Your task to perform on an android device: Clear the shopping cart on walmart.com. Search for bose soundlink mini on walmart.com, select the first entry, and add it to the cart. Image 0: 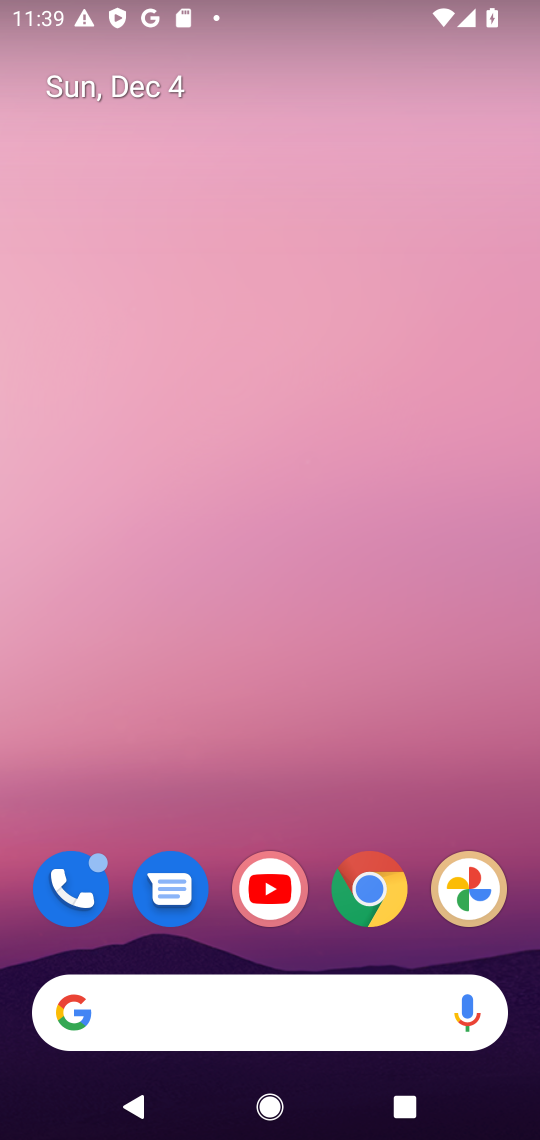
Step 0: click (375, 881)
Your task to perform on an android device: Clear the shopping cart on walmart.com. Search for bose soundlink mini on walmart.com, select the first entry, and add it to the cart. Image 1: 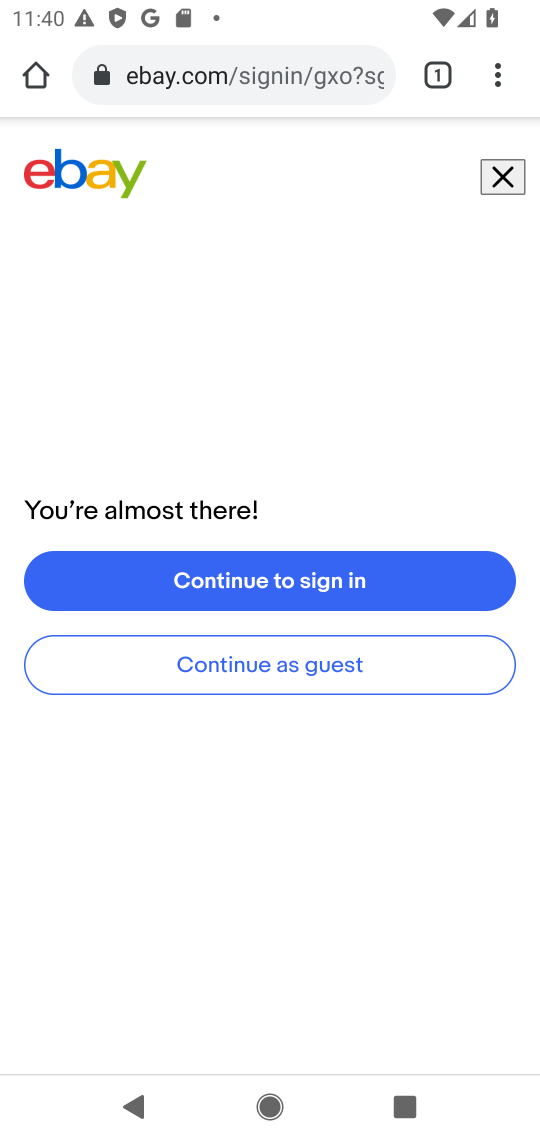
Step 1: press home button
Your task to perform on an android device: Clear the shopping cart on walmart.com. Search for bose soundlink mini on walmart.com, select the first entry, and add it to the cart. Image 2: 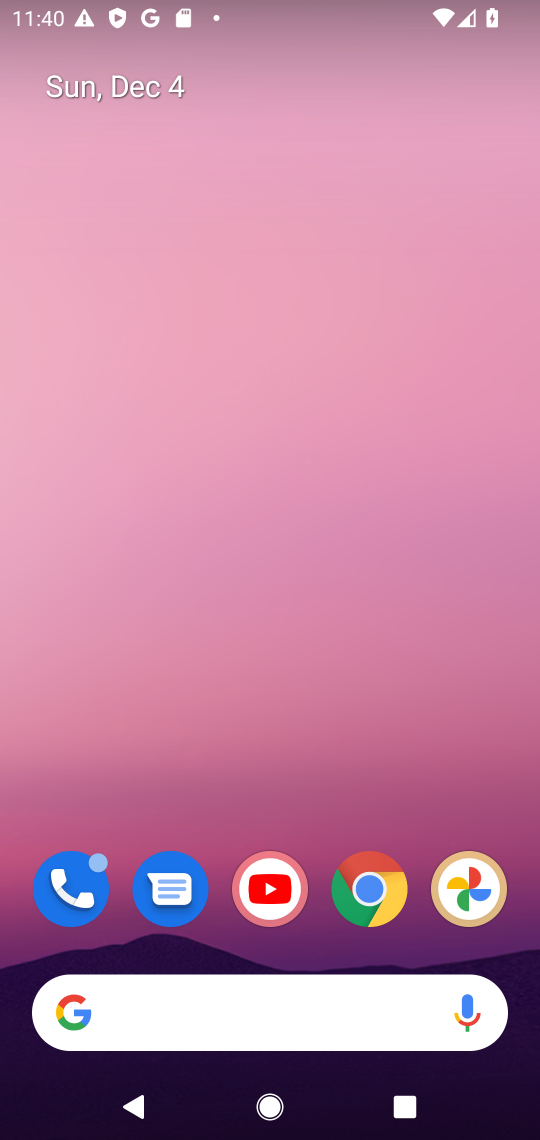
Step 2: click (359, 899)
Your task to perform on an android device: Clear the shopping cart on walmart.com. Search for bose soundlink mini on walmart.com, select the first entry, and add it to the cart. Image 3: 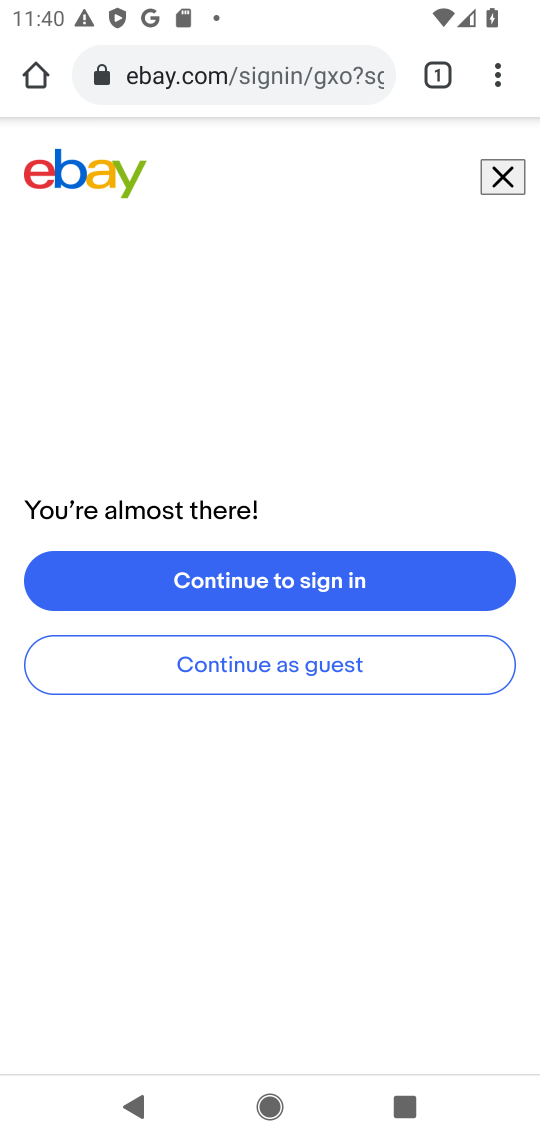
Step 3: click (305, 79)
Your task to perform on an android device: Clear the shopping cart on walmart.com. Search for bose soundlink mini on walmart.com, select the first entry, and add it to the cart. Image 4: 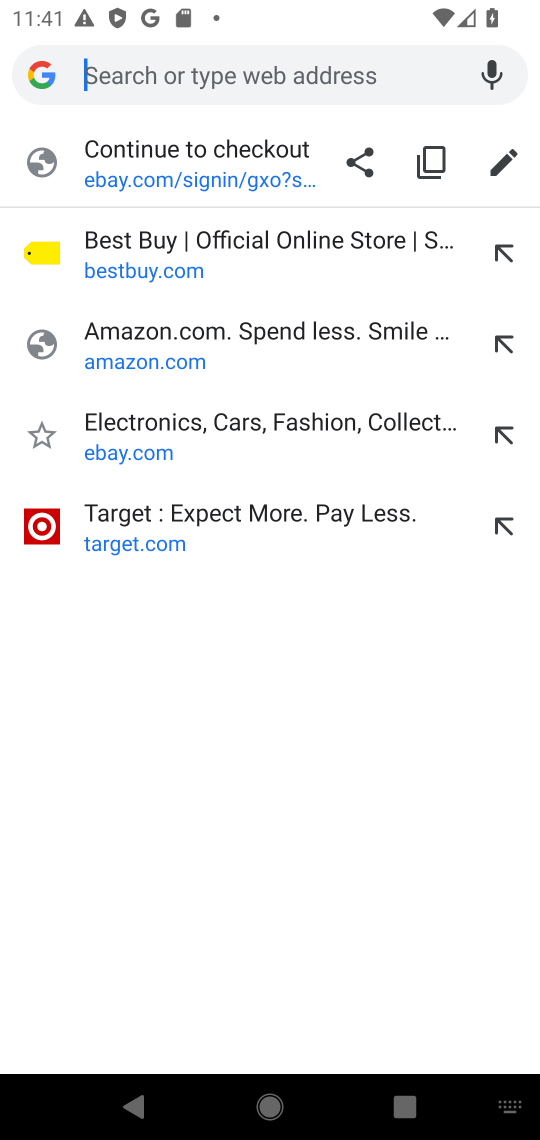
Step 4: type "walmart.com"
Your task to perform on an android device: Clear the shopping cart on walmart.com. Search for bose soundlink mini on walmart.com, select the first entry, and add it to the cart. Image 5: 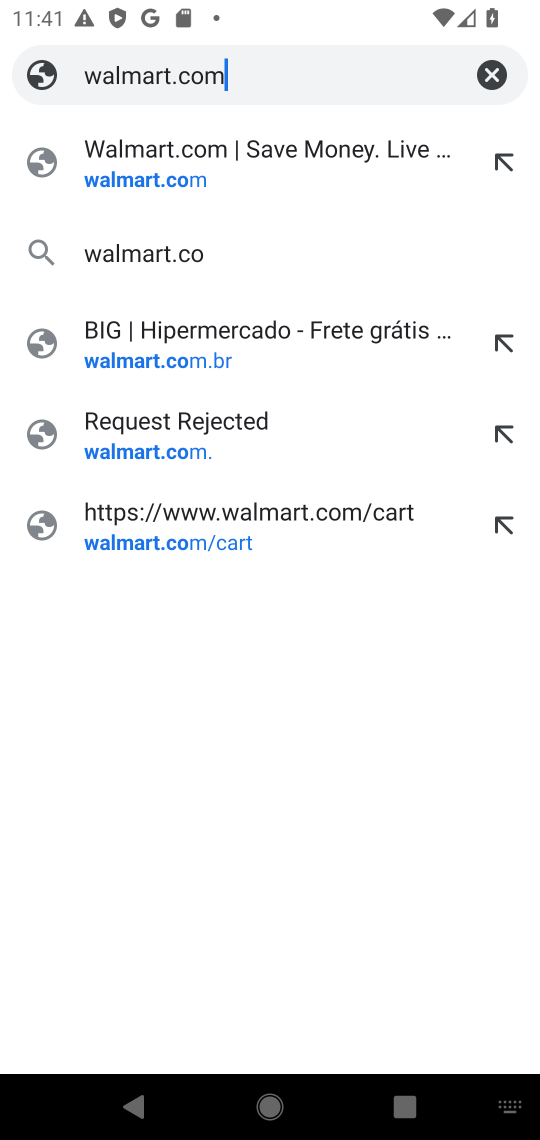
Step 5: press enter
Your task to perform on an android device: Clear the shopping cart on walmart.com. Search for bose soundlink mini on walmart.com, select the first entry, and add it to the cart. Image 6: 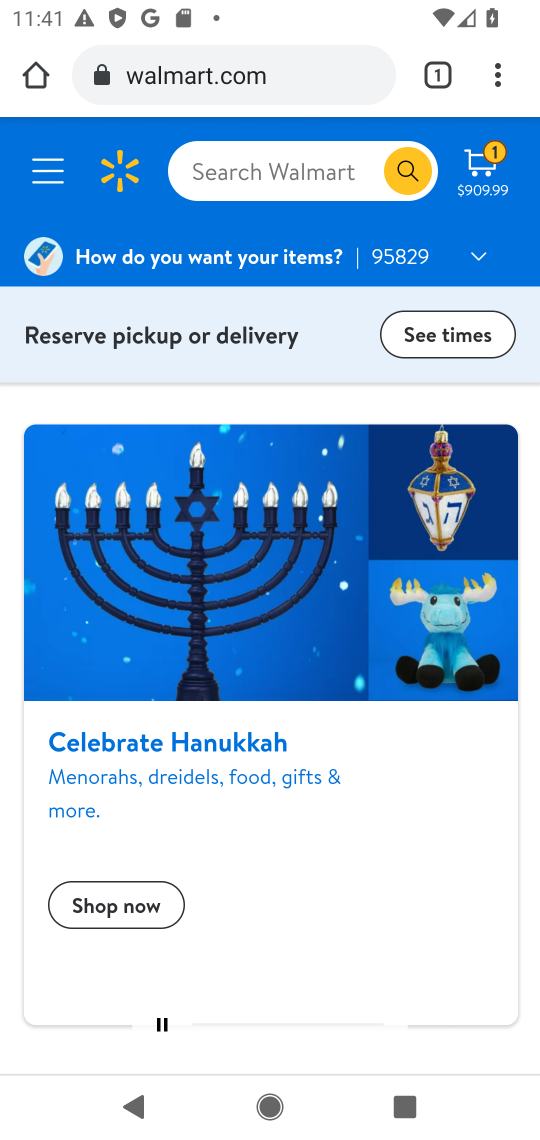
Step 6: click (462, 166)
Your task to perform on an android device: Clear the shopping cart on walmart.com. Search for bose soundlink mini on walmart.com, select the first entry, and add it to the cart. Image 7: 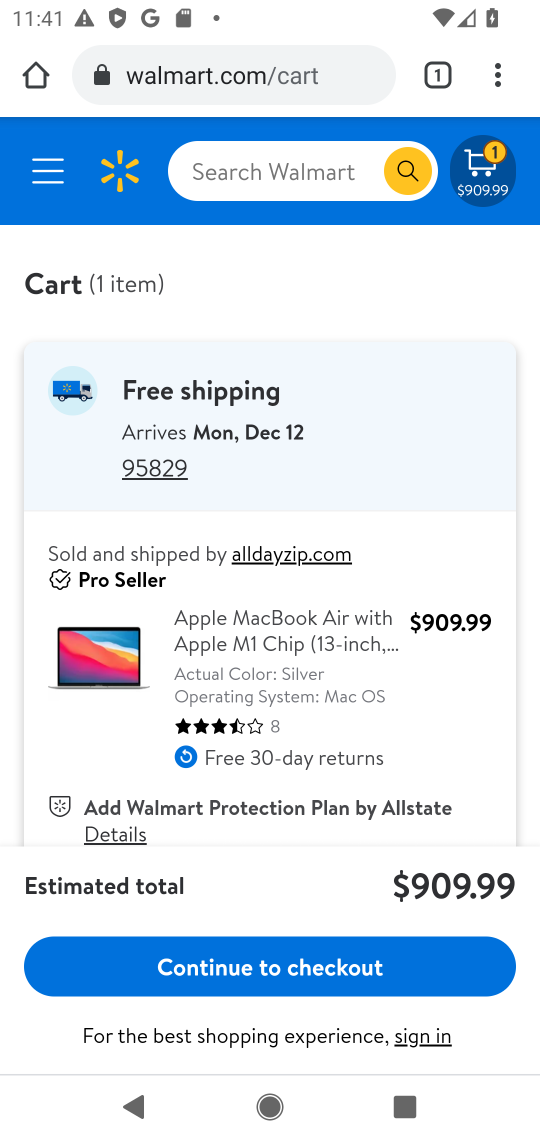
Step 7: drag from (262, 833) to (282, 446)
Your task to perform on an android device: Clear the shopping cart on walmart.com. Search for bose soundlink mini on walmart.com, select the first entry, and add it to the cart. Image 8: 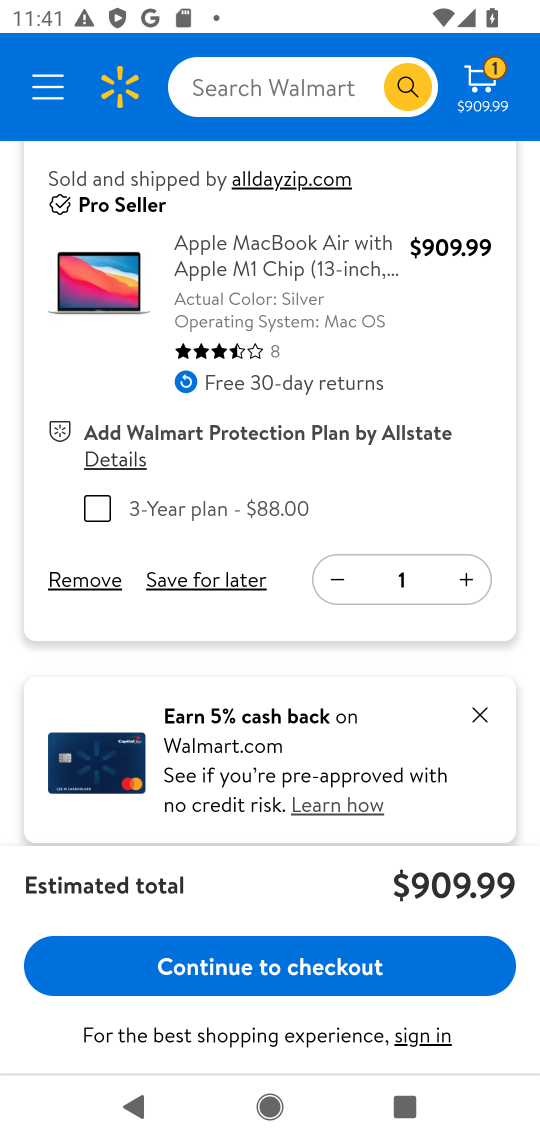
Step 8: click (99, 576)
Your task to perform on an android device: Clear the shopping cart on walmart.com. Search for bose soundlink mini on walmart.com, select the first entry, and add it to the cart. Image 9: 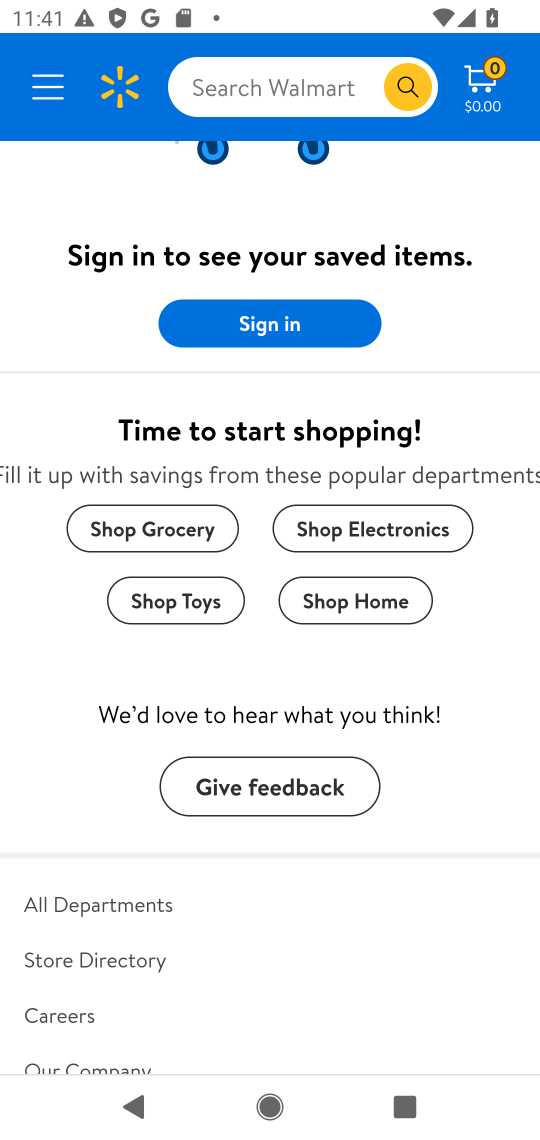
Step 9: click (290, 74)
Your task to perform on an android device: Clear the shopping cart on walmart.com. Search for bose soundlink mini on walmart.com, select the first entry, and add it to the cart. Image 10: 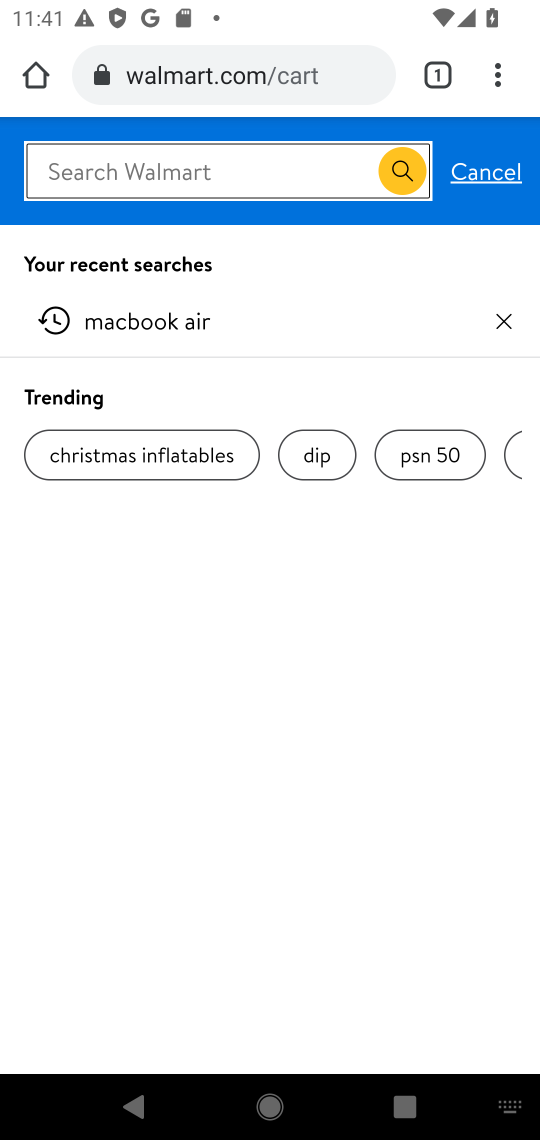
Step 10: type "bose soundlink mini"
Your task to perform on an android device: Clear the shopping cart on walmart.com. Search for bose soundlink mini on walmart.com, select the first entry, and add it to the cart. Image 11: 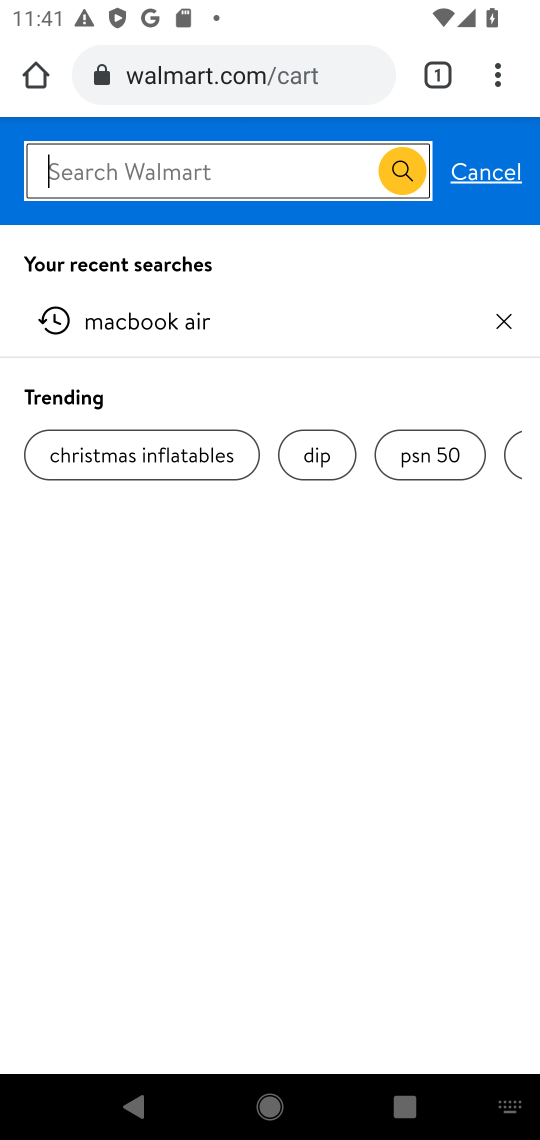
Step 11: press enter
Your task to perform on an android device: Clear the shopping cart on walmart.com. Search for bose soundlink mini on walmart.com, select the first entry, and add it to the cart. Image 12: 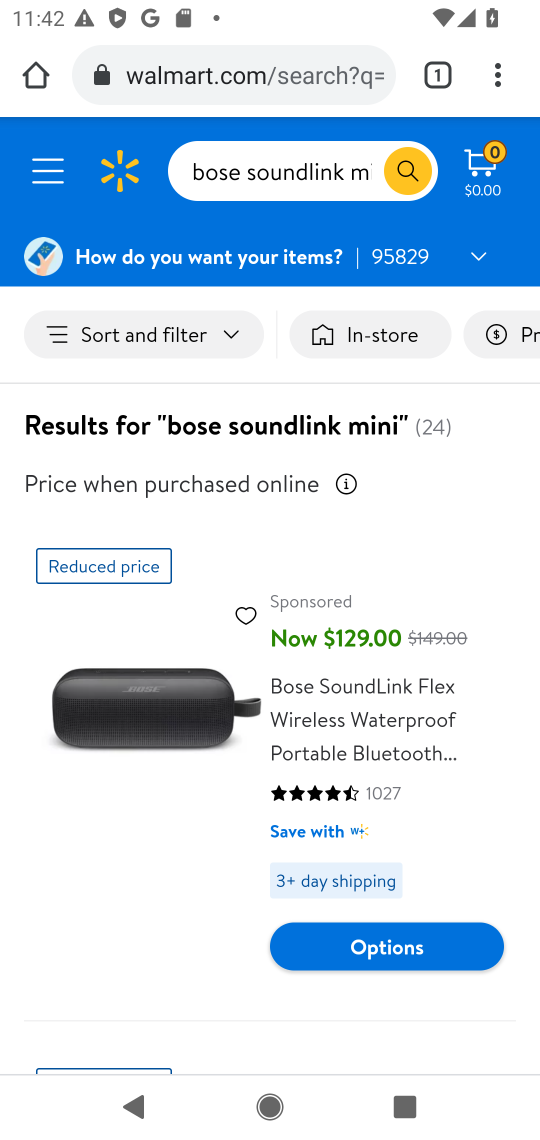
Step 12: task complete